Your task to perform on an android device: Is it going to rain today? Image 0: 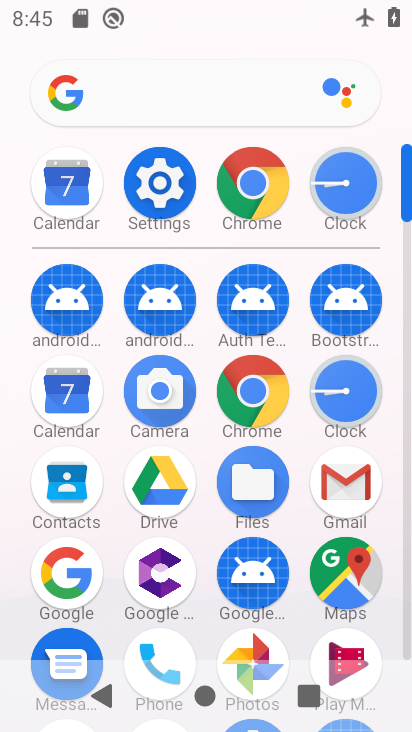
Step 0: click (225, 100)
Your task to perform on an android device: Is it going to rain today? Image 1: 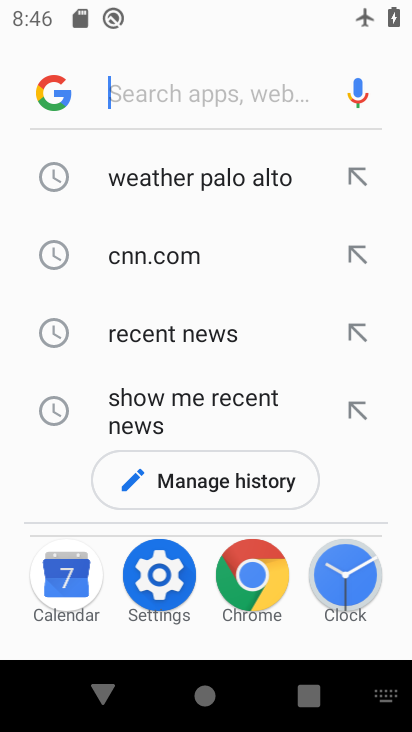
Step 1: type "weather"
Your task to perform on an android device: Is it going to rain today? Image 2: 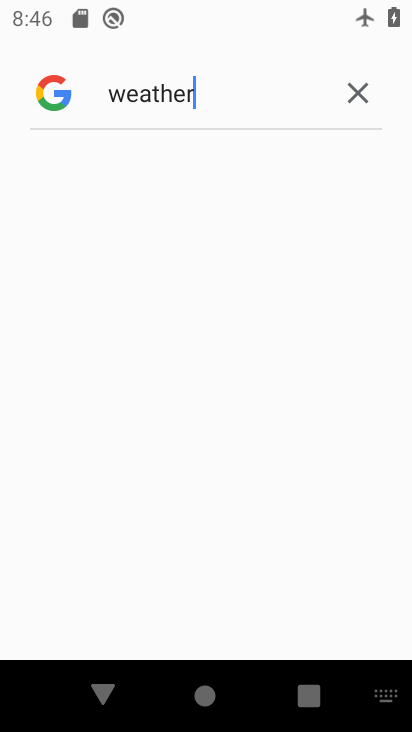
Step 2: task complete